Your task to perform on an android device: Go to ESPN.com Image 0: 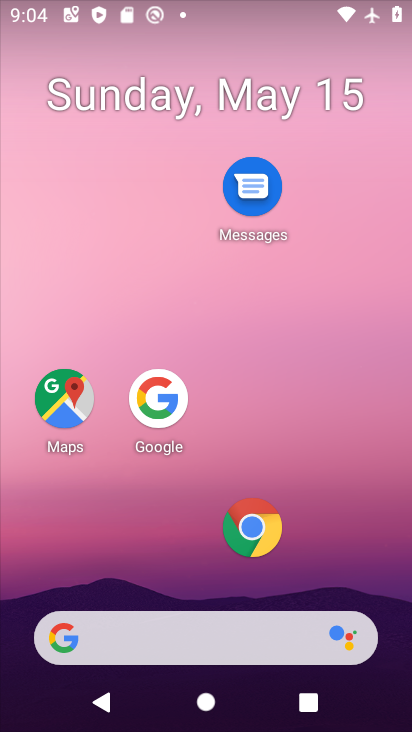
Step 0: drag from (160, 648) to (323, 179)
Your task to perform on an android device: Go to ESPN.com Image 1: 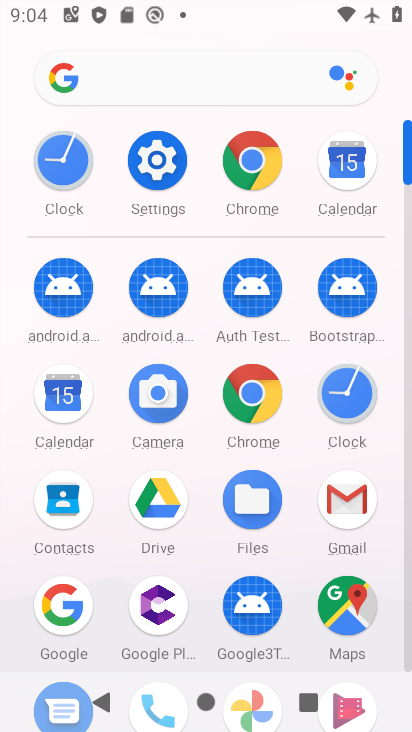
Step 1: click (245, 174)
Your task to perform on an android device: Go to ESPN.com Image 2: 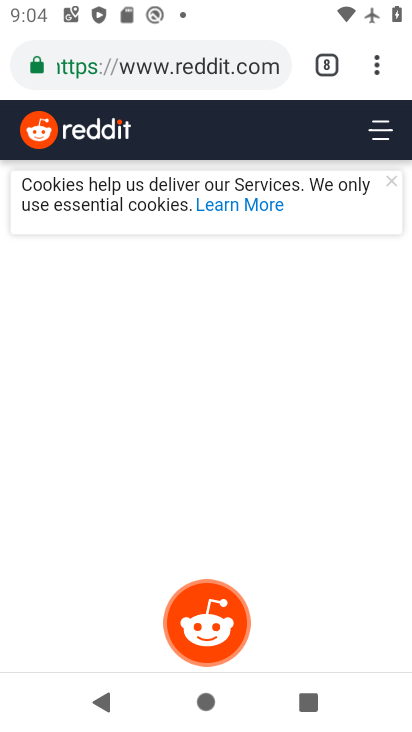
Step 2: drag from (378, 66) to (287, 135)
Your task to perform on an android device: Go to ESPN.com Image 3: 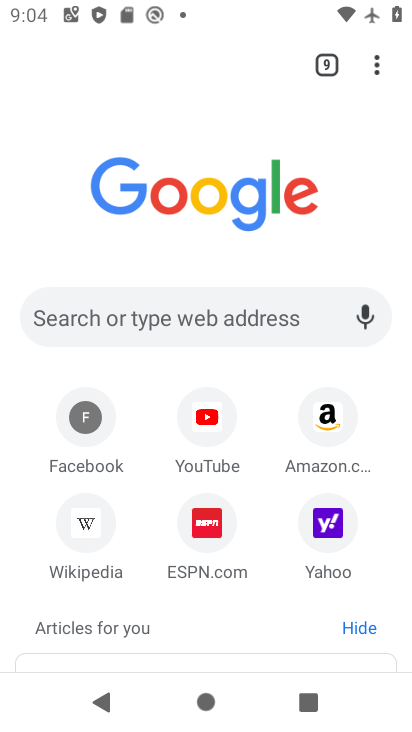
Step 3: click (201, 530)
Your task to perform on an android device: Go to ESPN.com Image 4: 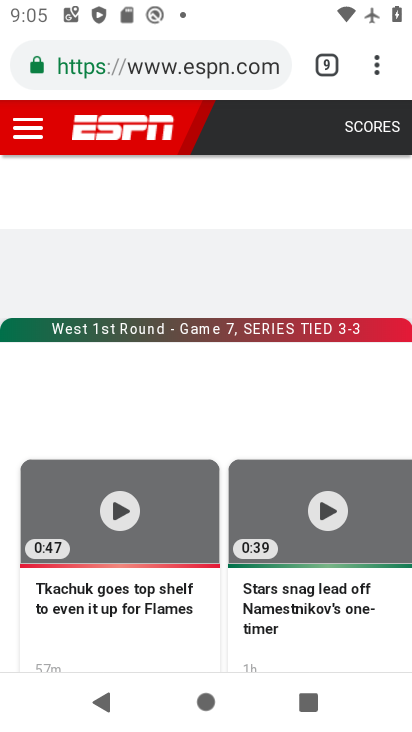
Step 4: task complete